Your task to perform on an android device: open chrome privacy settings Image 0: 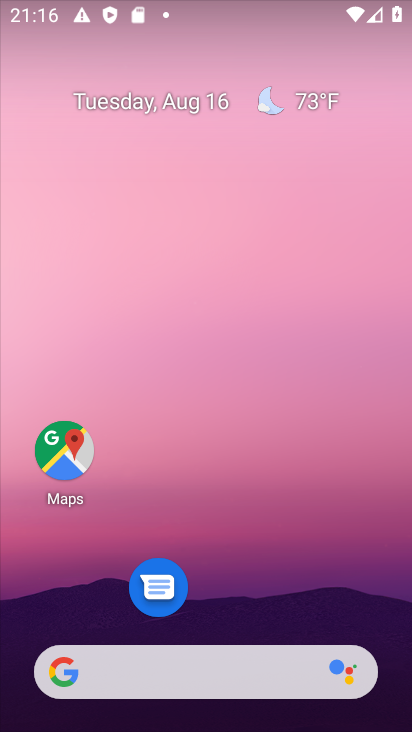
Step 0: drag from (215, 630) to (195, 99)
Your task to perform on an android device: open chrome privacy settings Image 1: 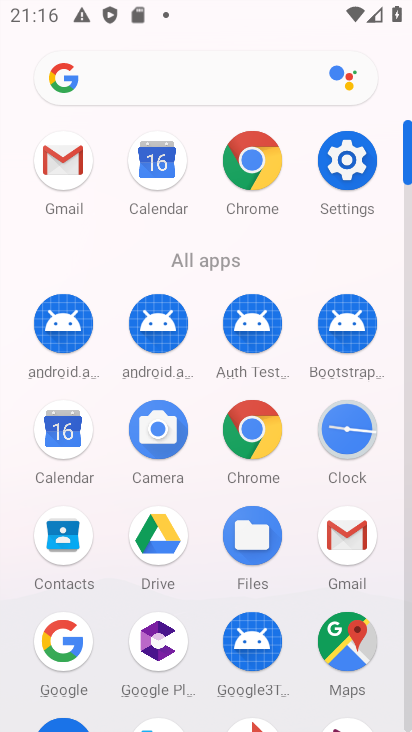
Step 1: click (254, 396)
Your task to perform on an android device: open chrome privacy settings Image 2: 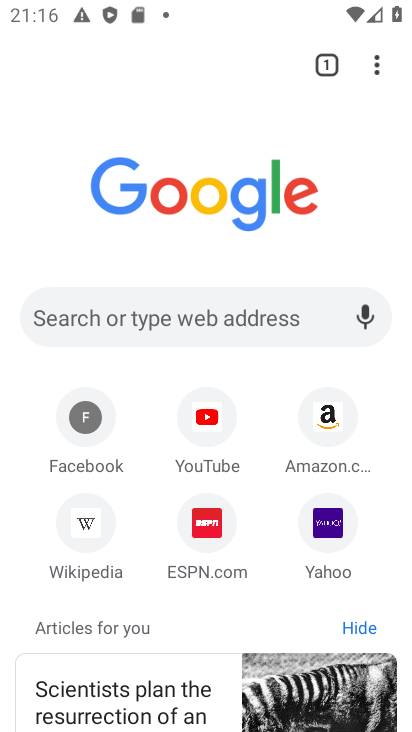
Step 2: click (380, 77)
Your task to perform on an android device: open chrome privacy settings Image 3: 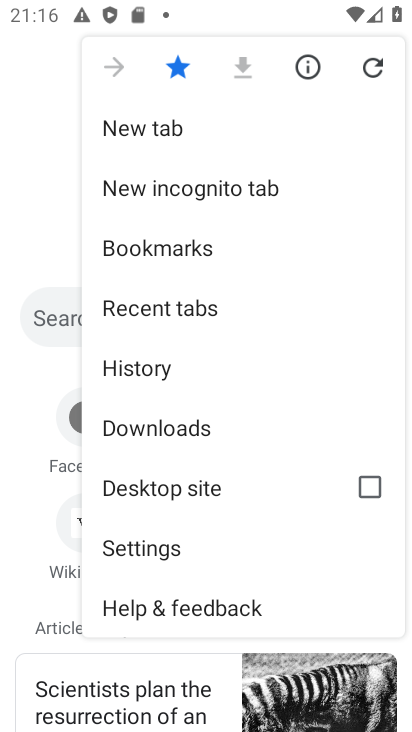
Step 3: click (154, 547)
Your task to perform on an android device: open chrome privacy settings Image 4: 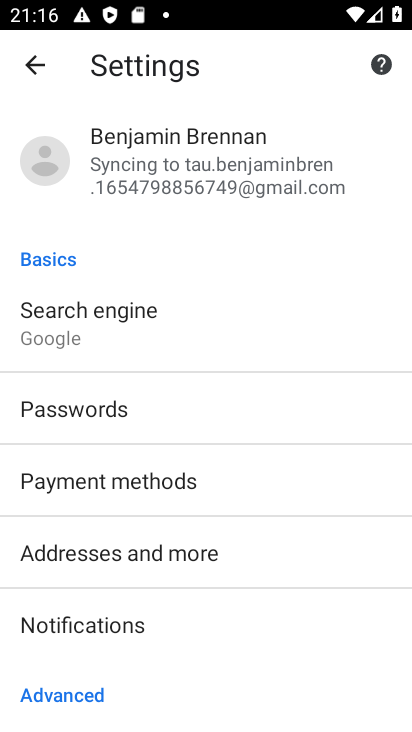
Step 4: drag from (154, 547) to (178, 104)
Your task to perform on an android device: open chrome privacy settings Image 5: 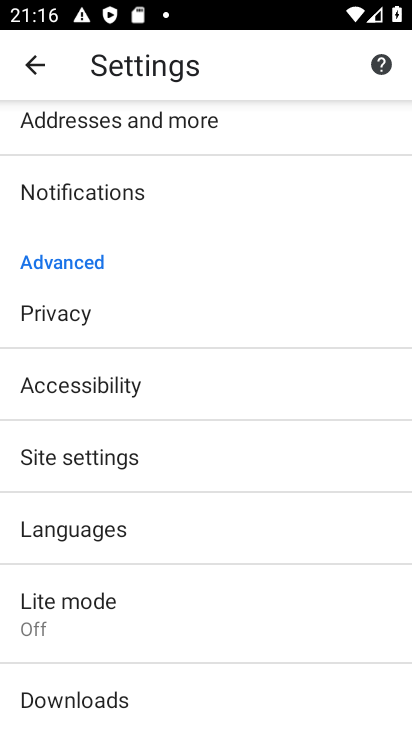
Step 5: click (41, 335)
Your task to perform on an android device: open chrome privacy settings Image 6: 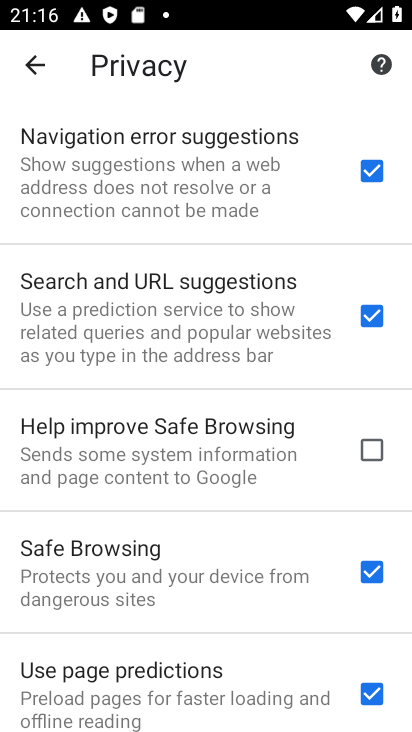
Step 6: task complete